Your task to perform on an android device: choose inbox layout in the gmail app Image 0: 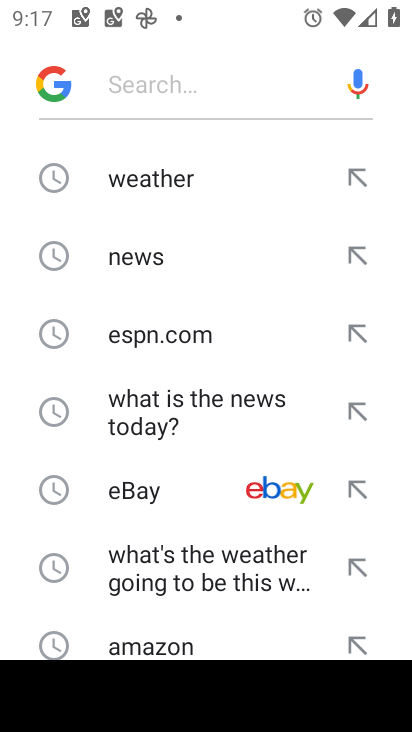
Step 0: press home button
Your task to perform on an android device: choose inbox layout in the gmail app Image 1: 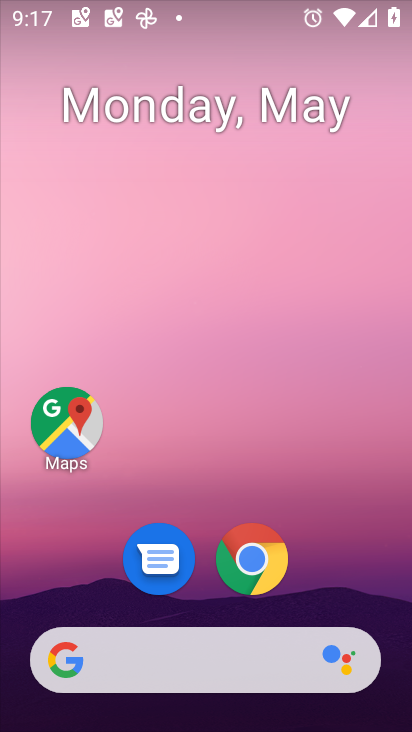
Step 1: drag from (404, 669) to (293, 99)
Your task to perform on an android device: choose inbox layout in the gmail app Image 2: 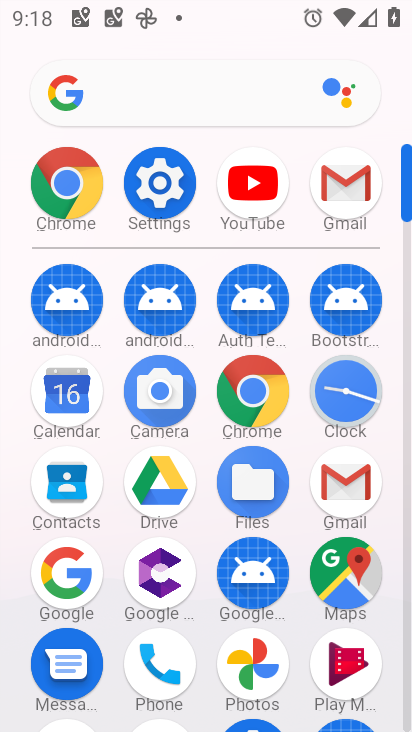
Step 2: click (331, 490)
Your task to perform on an android device: choose inbox layout in the gmail app Image 3: 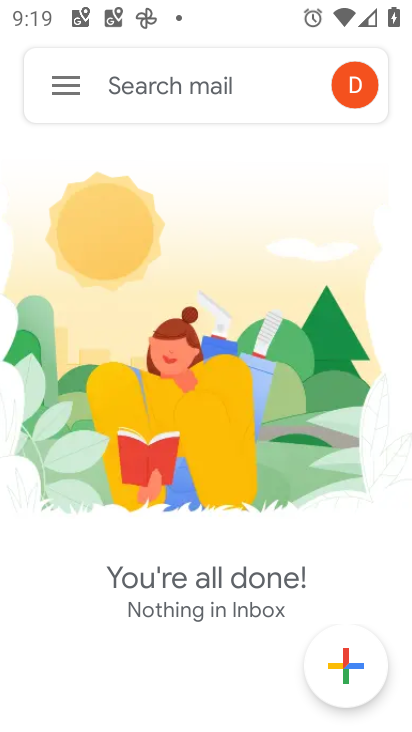
Step 3: task complete